Your task to perform on an android device: check the backup settings in the google photos Image 0: 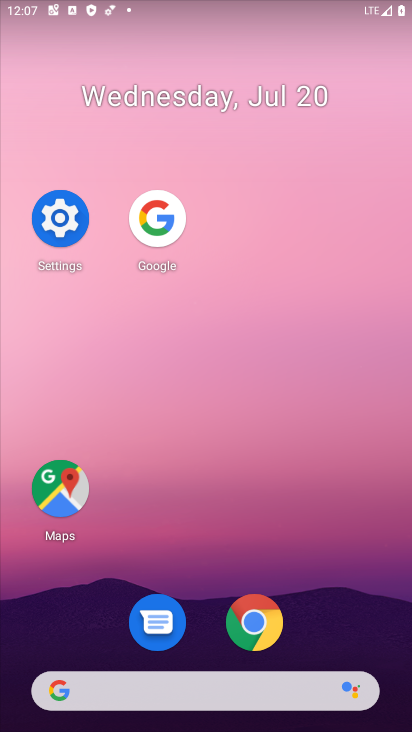
Step 0: drag from (329, 540) to (369, 180)
Your task to perform on an android device: check the backup settings in the google photos Image 1: 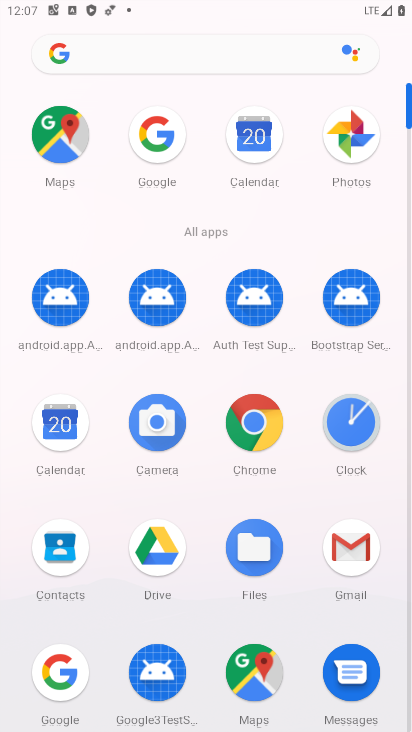
Step 1: drag from (356, 138) to (258, 188)
Your task to perform on an android device: check the backup settings in the google photos Image 2: 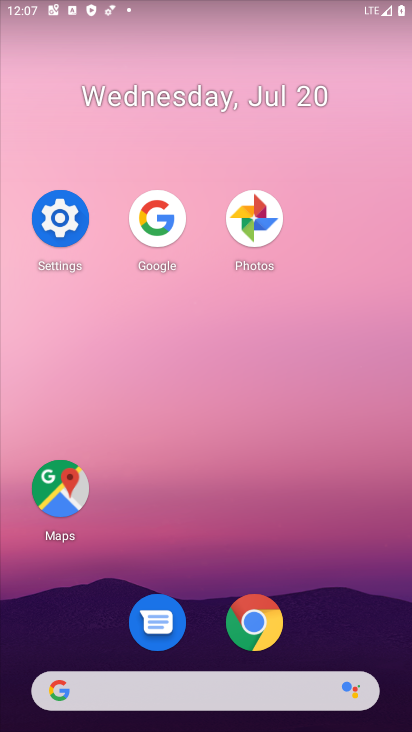
Step 2: click (245, 203)
Your task to perform on an android device: check the backup settings in the google photos Image 3: 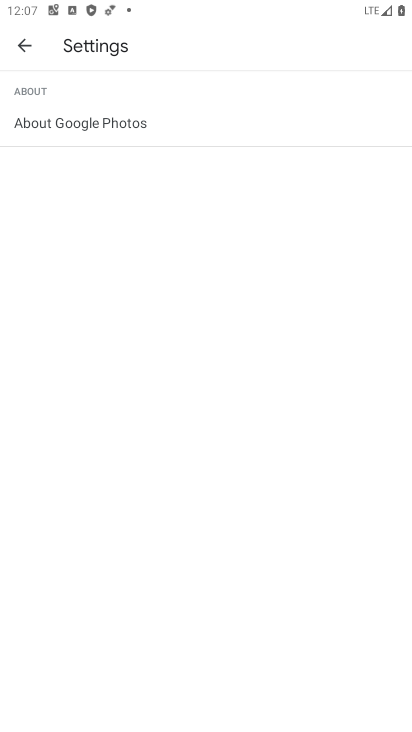
Step 3: click (33, 54)
Your task to perform on an android device: check the backup settings in the google photos Image 4: 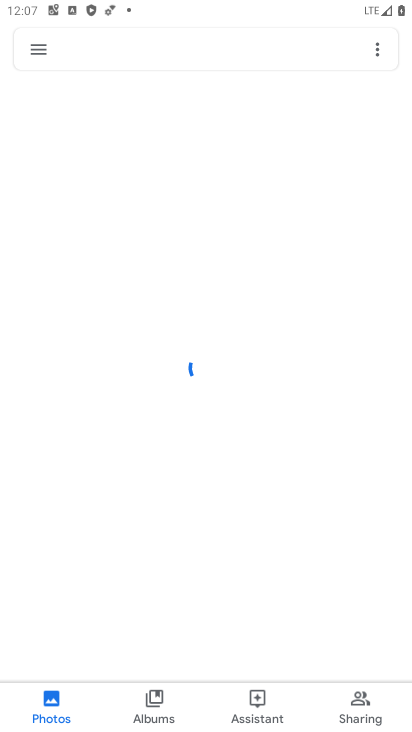
Step 4: click (33, 54)
Your task to perform on an android device: check the backup settings in the google photos Image 5: 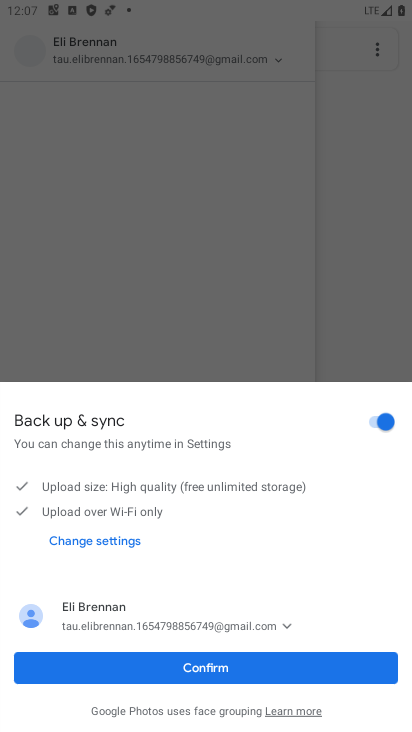
Step 5: click (281, 665)
Your task to perform on an android device: check the backup settings in the google photos Image 6: 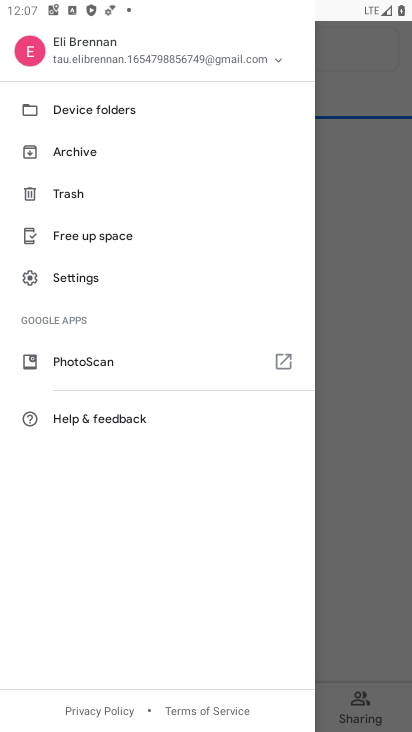
Step 6: click (97, 277)
Your task to perform on an android device: check the backup settings in the google photos Image 7: 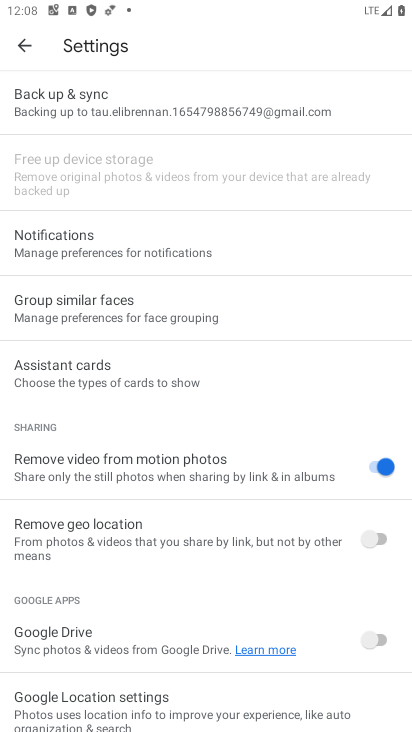
Step 7: click (154, 119)
Your task to perform on an android device: check the backup settings in the google photos Image 8: 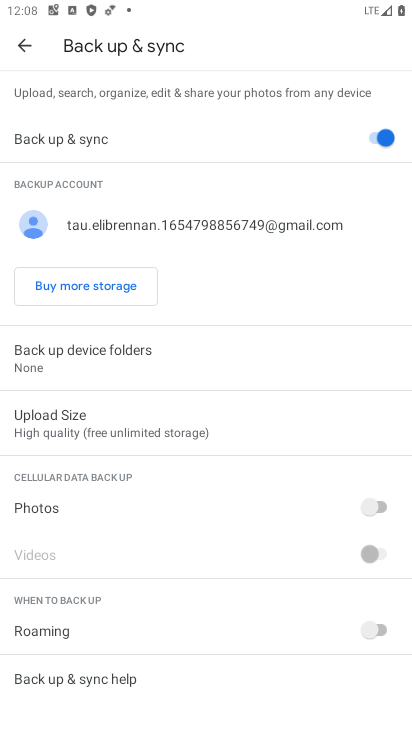
Step 8: task complete